Your task to perform on an android device: Open Yahoo.com Image 0: 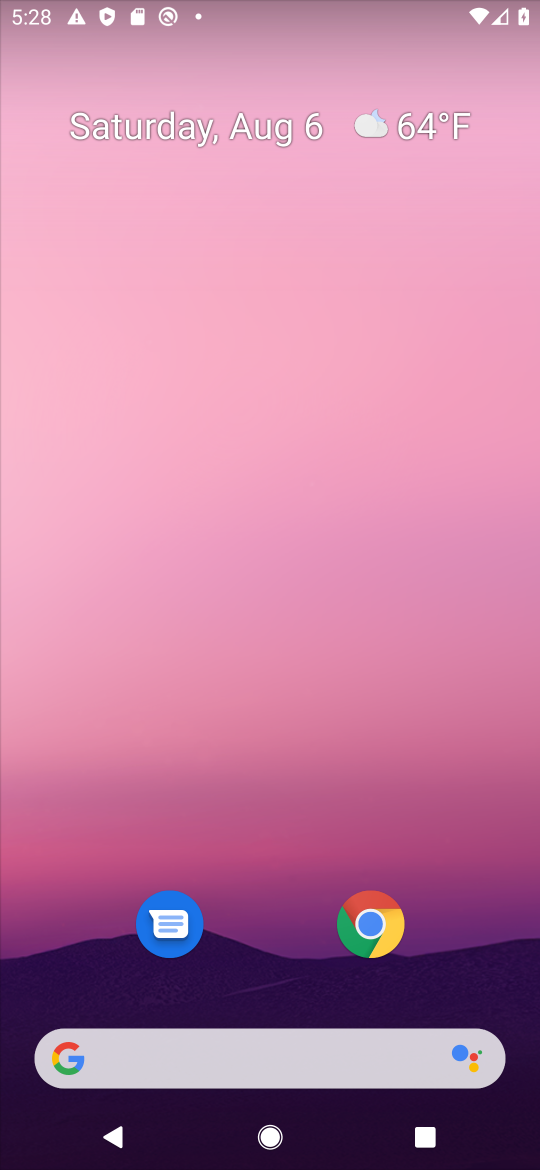
Step 0: click (374, 1061)
Your task to perform on an android device: Open Yahoo.com Image 1: 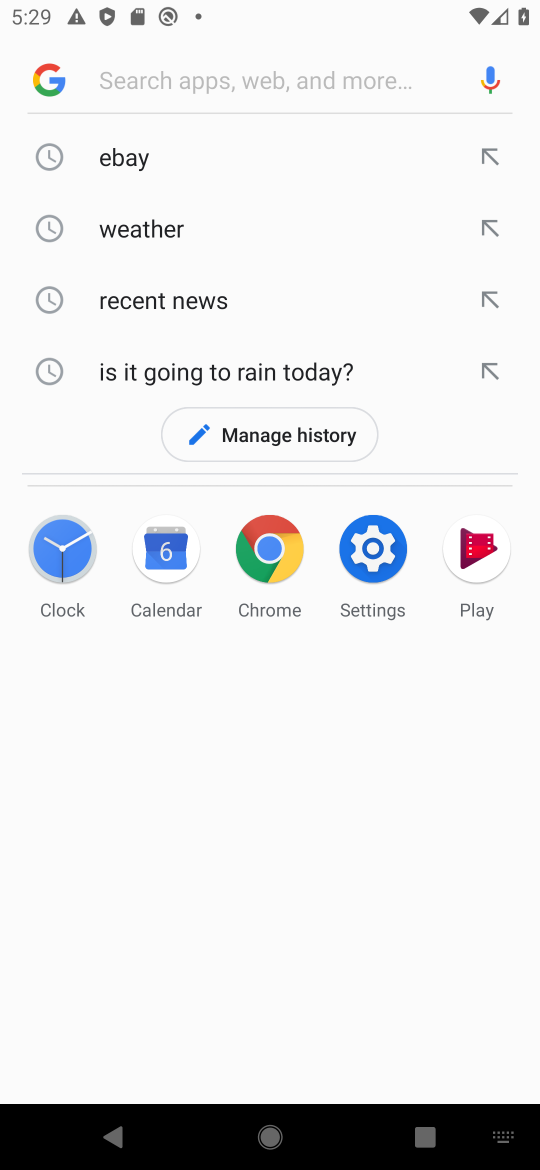
Step 1: type "yahoo.com"
Your task to perform on an android device: Open Yahoo.com Image 2: 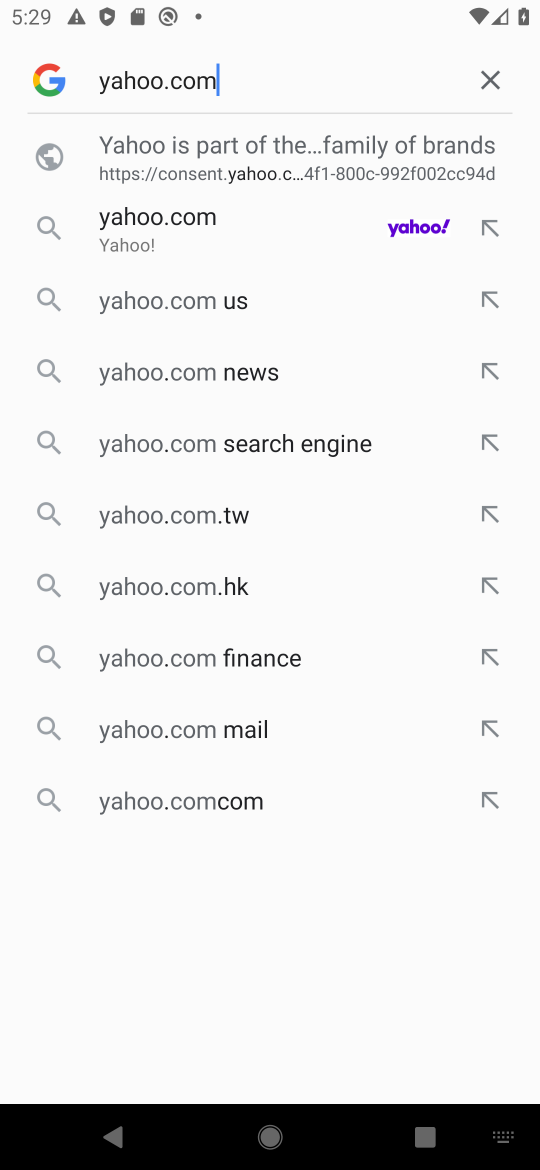
Step 2: click (165, 239)
Your task to perform on an android device: Open Yahoo.com Image 3: 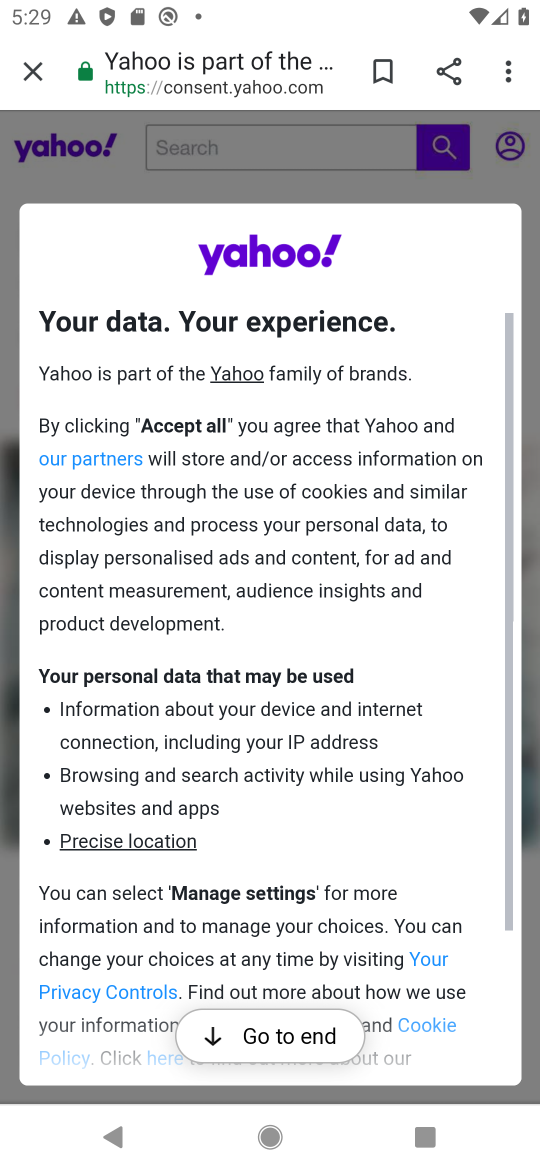
Step 3: task complete